Your task to perform on an android device: turn notification dots off Image 0: 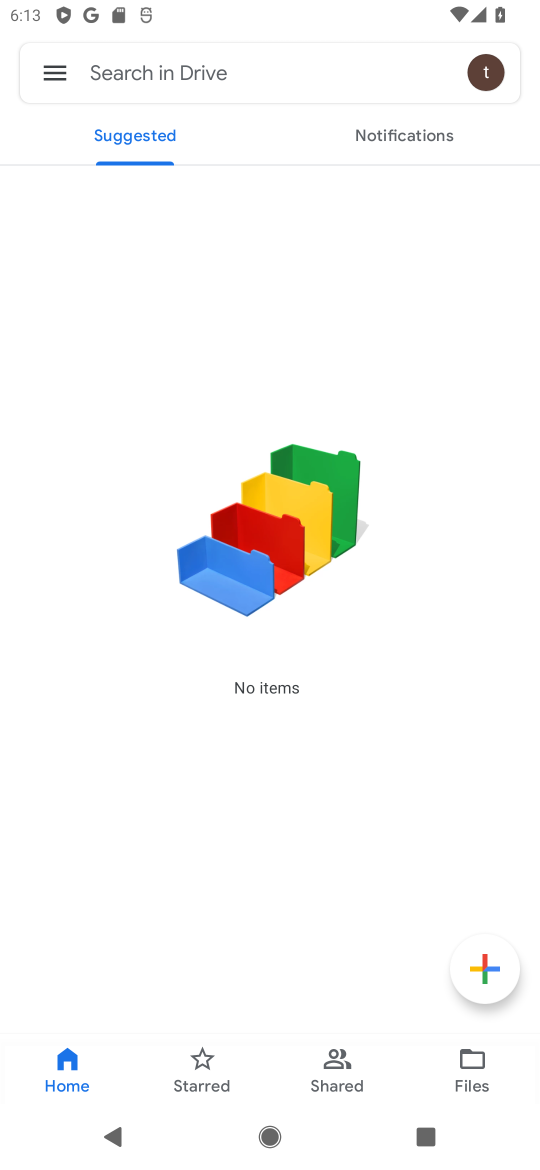
Step 0: press home button
Your task to perform on an android device: turn notification dots off Image 1: 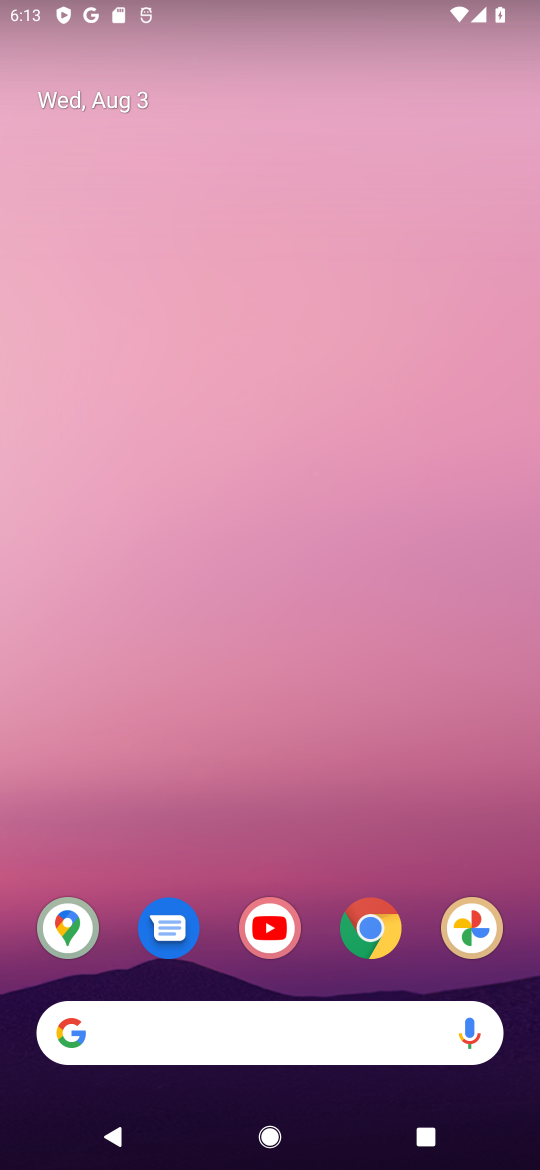
Step 1: drag from (323, 821) to (367, 95)
Your task to perform on an android device: turn notification dots off Image 2: 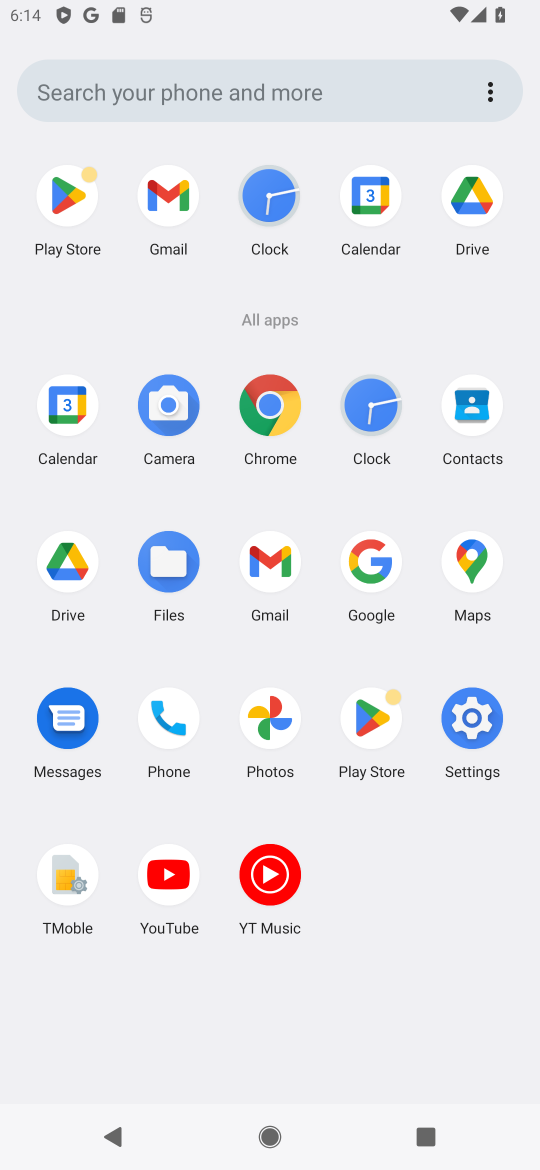
Step 2: click (486, 721)
Your task to perform on an android device: turn notification dots off Image 3: 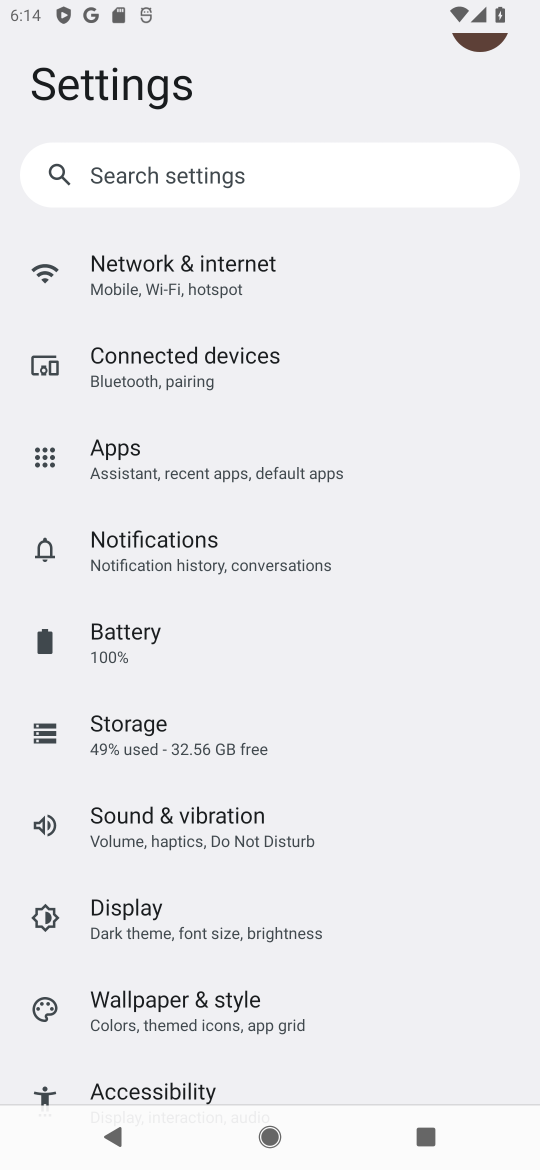
Step 3: drag from (410, 947) to (430, 632)
Your task to perform on an android device: turn notification dots off Image 4: 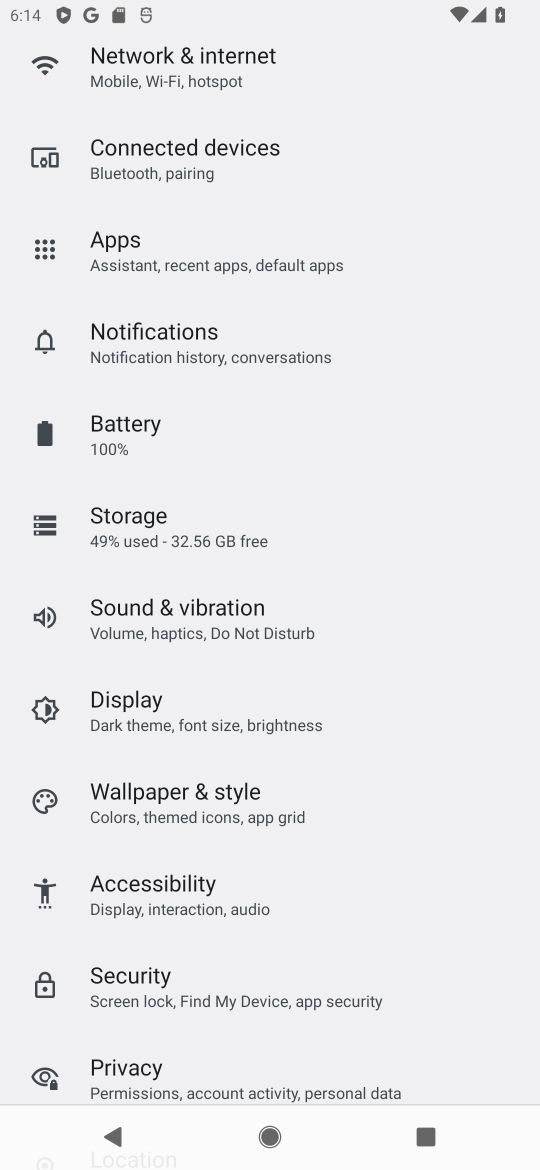
Step 4: drag from (389, 962) to (393, 638)
Your task to perform on an android device: turn notification dots off Image 5: 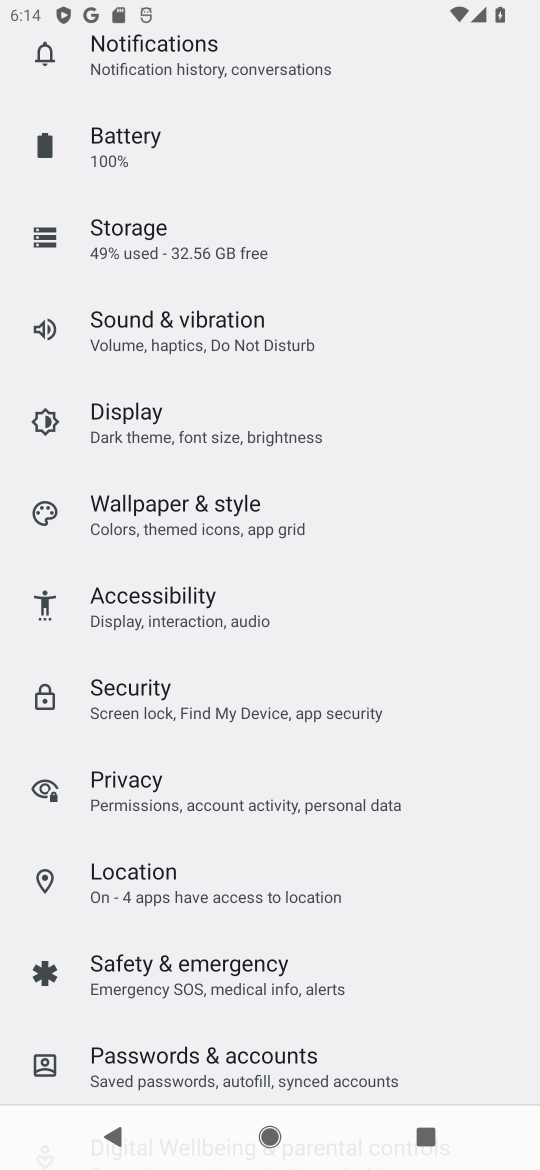
Step 5: drag from (428, 984) to (453, 713)
Your task to perform on an android device: turn notification dots off Image 6: 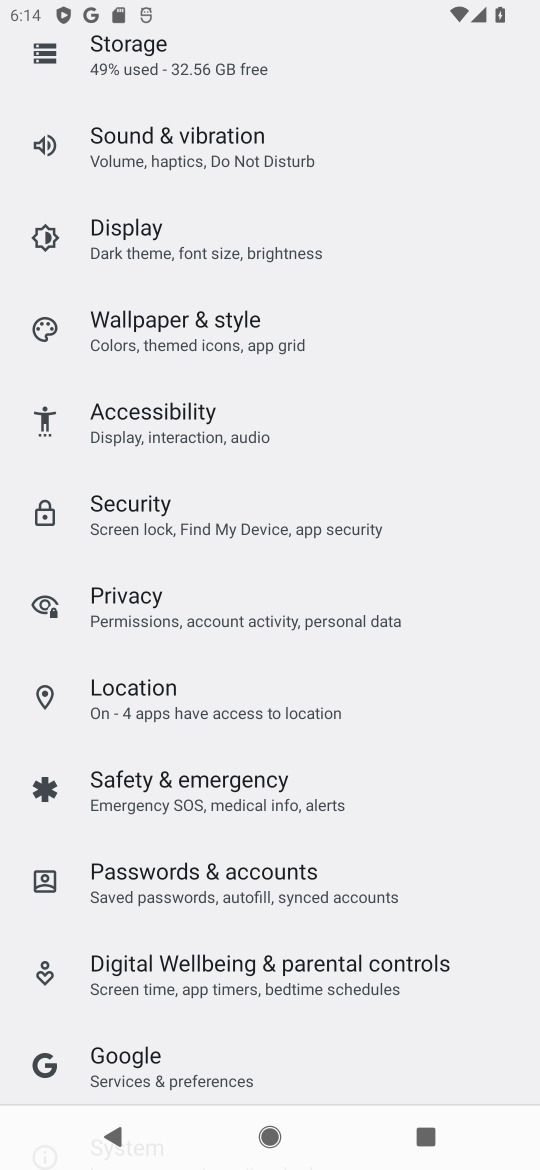
Step 6: drag from (456, 1005) to (462, 559)
Your task to perform on an android device: turn notification dots off Image 7: 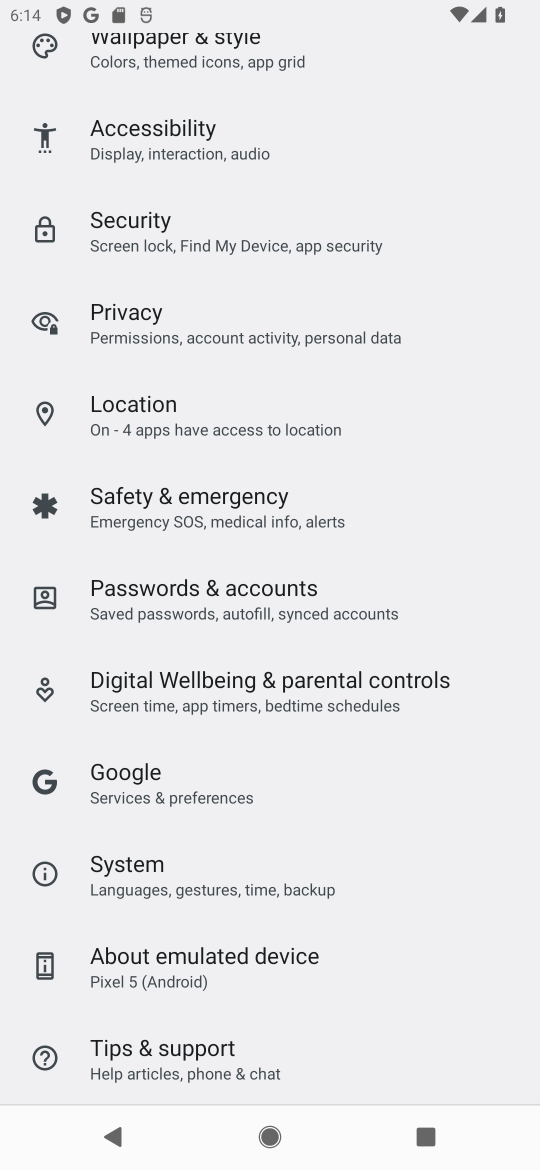
Step 7: drag from (433, 1037) to (455, 601)
Your task to perform on an android device: turn notification dots off Image 8: 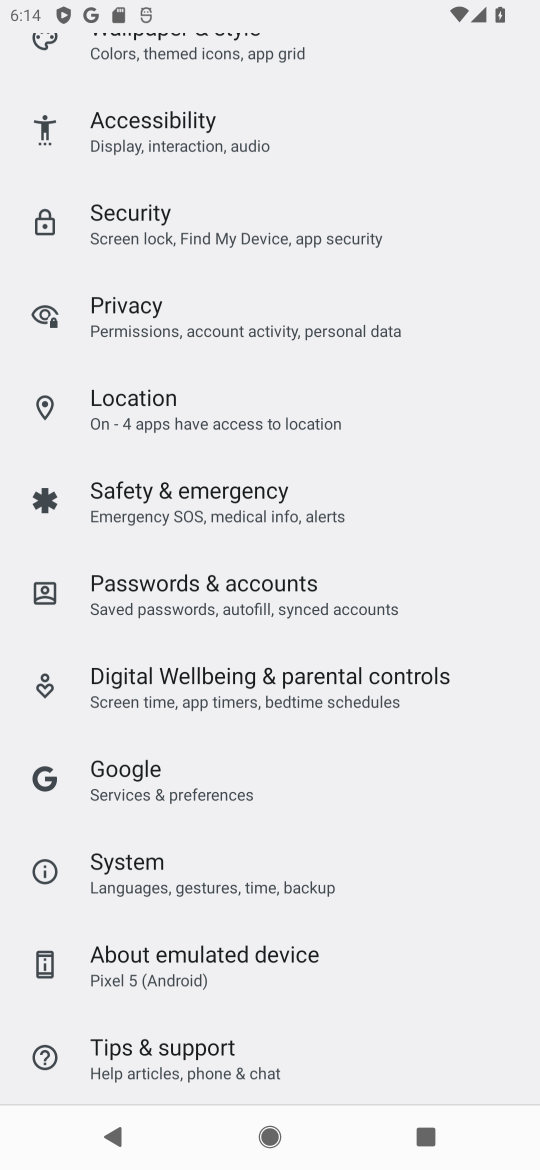
Step 8: drag from (452, 494) to (454, 855)
Your task to perform on an android device: turn notification dots off Image 9: 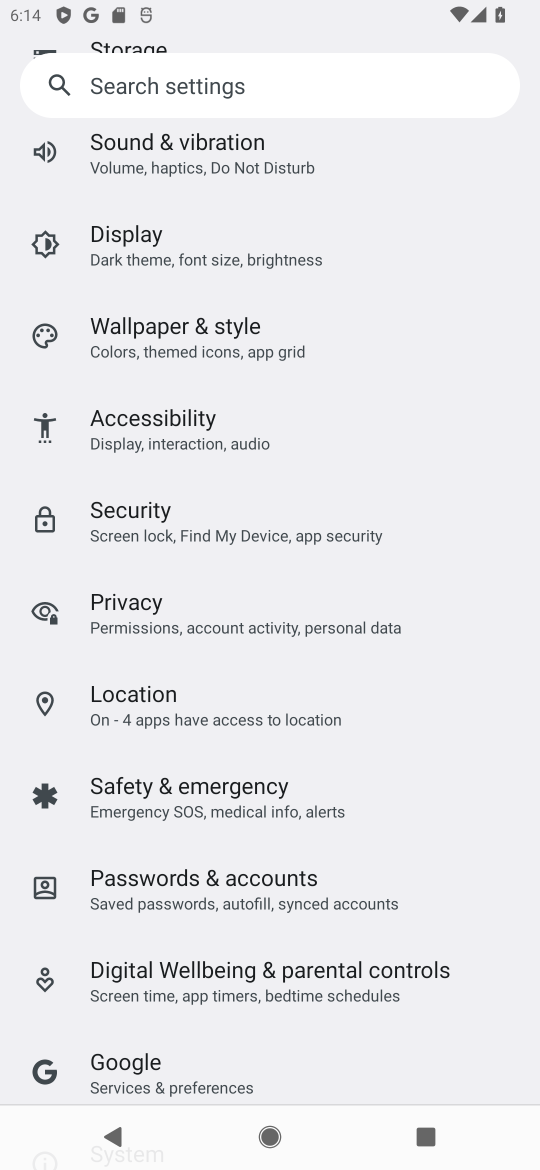
Step 9: drag from (455, 417) to (443, 733)
Your task to perform on an android device: turn notification dots off Image 10: 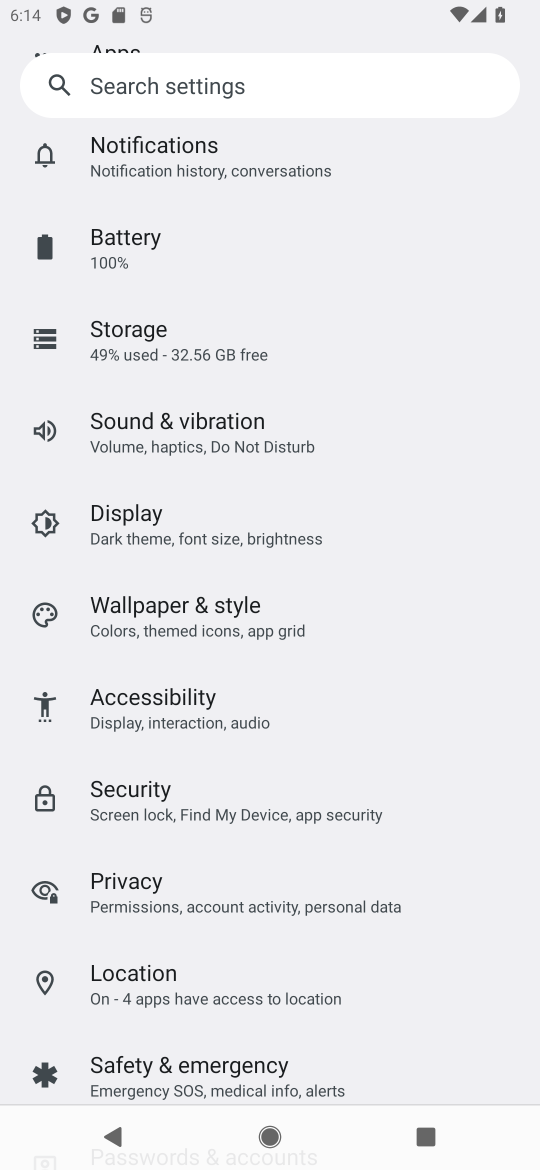
Step 10: drag from (448, 380) to (449, 760)
Your task to perform on an android device: turn notification dots off Image 11: 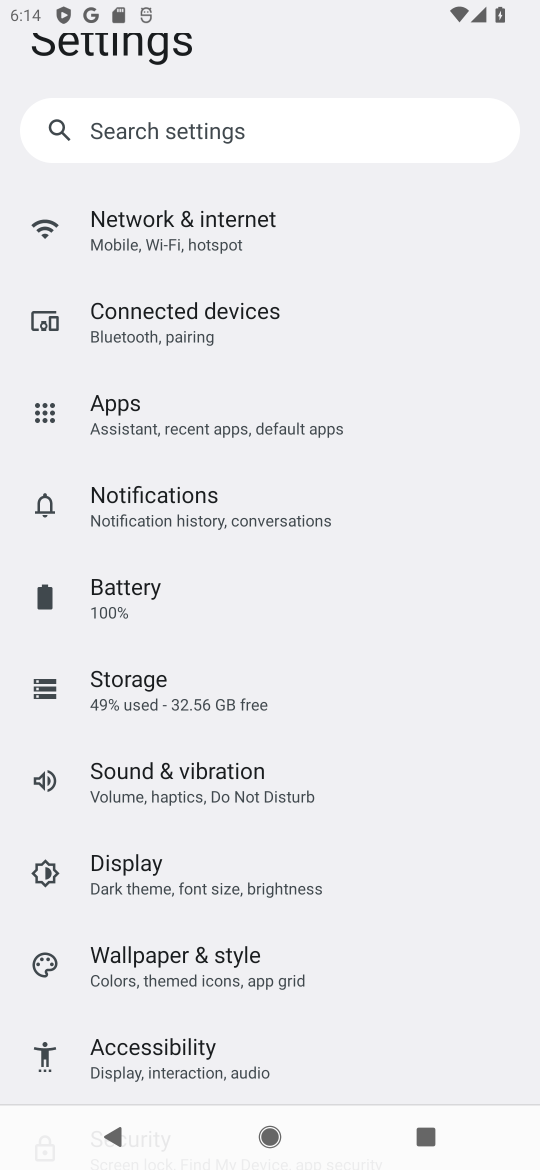
Step 11: drag from (451, 379) to (446, 726)
Your task to perform on an android device: turn notification dots off Image 12: 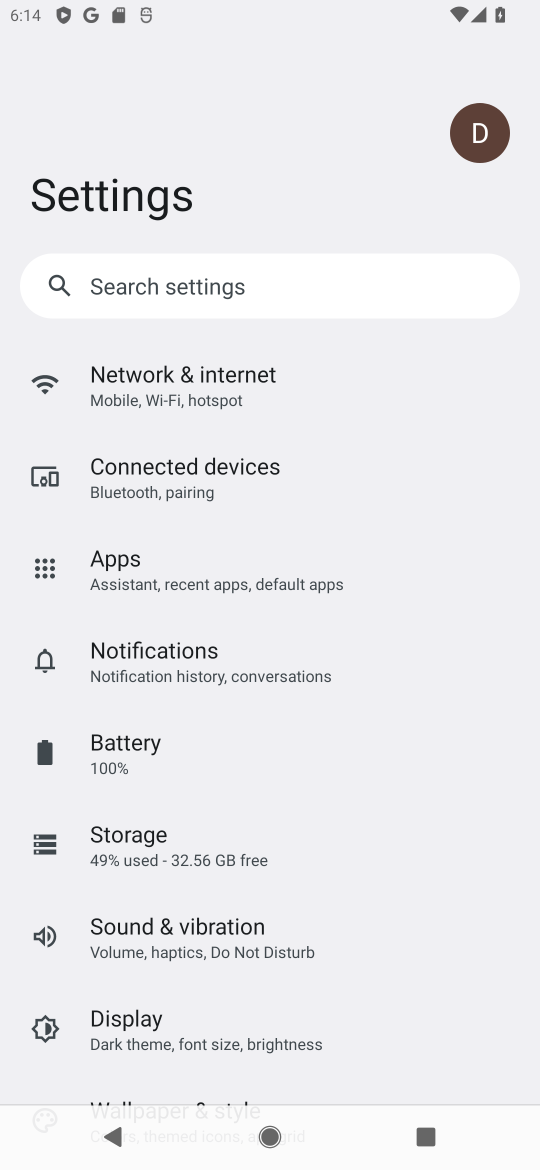
Step 12: click (287, 655)
Your task to perform on an android device: turn notification dots off Image 13: 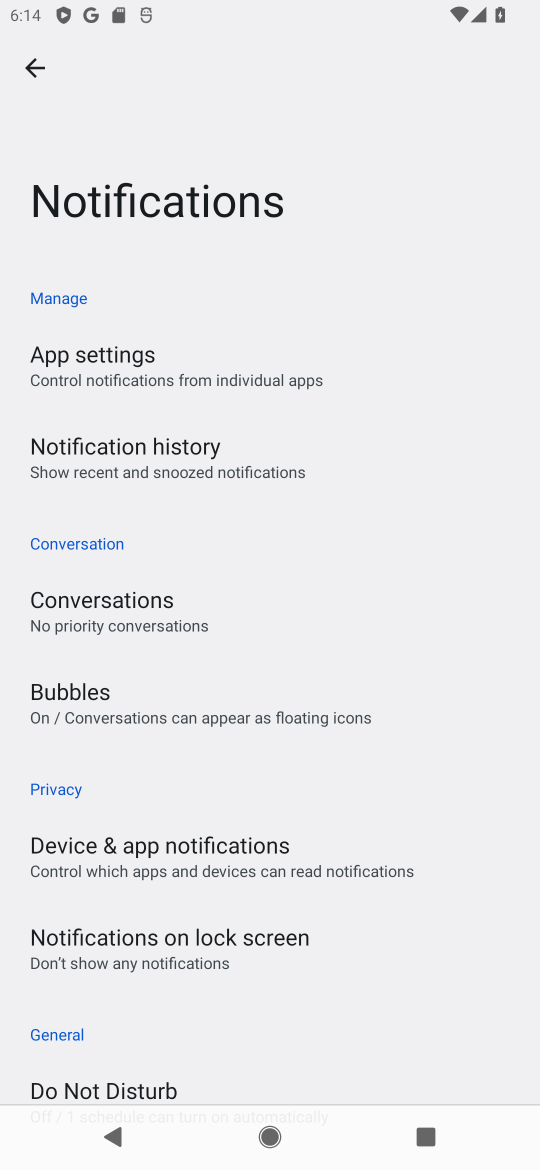
Step 13: drag from (466, 1005) to (490, 717)
Your task to perform on an android device: turn notification dots off Image 14: 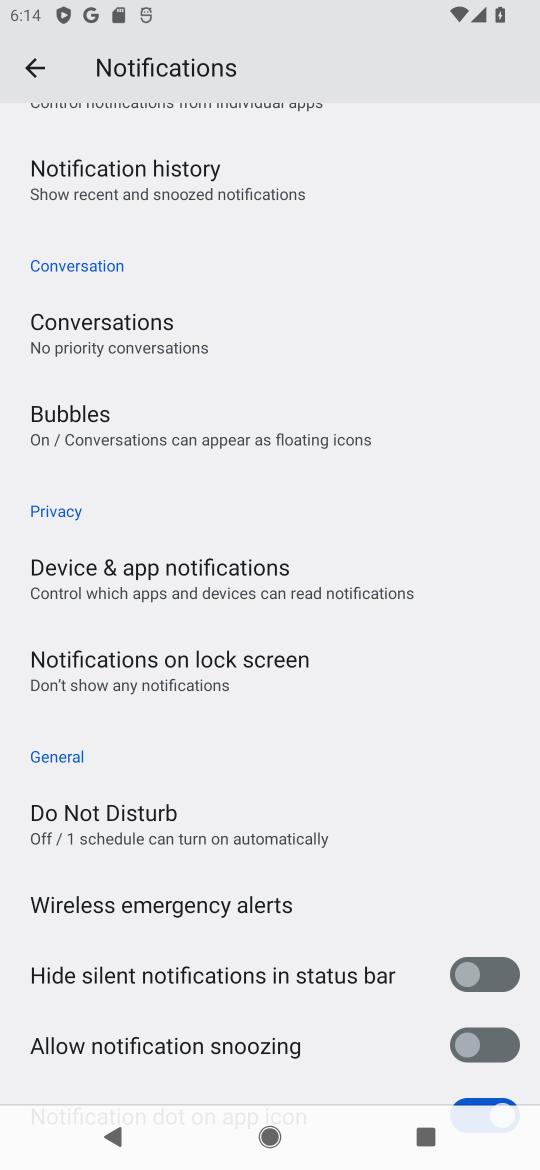
Step 14: drag from (376, 1063) to (405, 778)
Your task to perform on an android device: turn notification dots off Image 15: 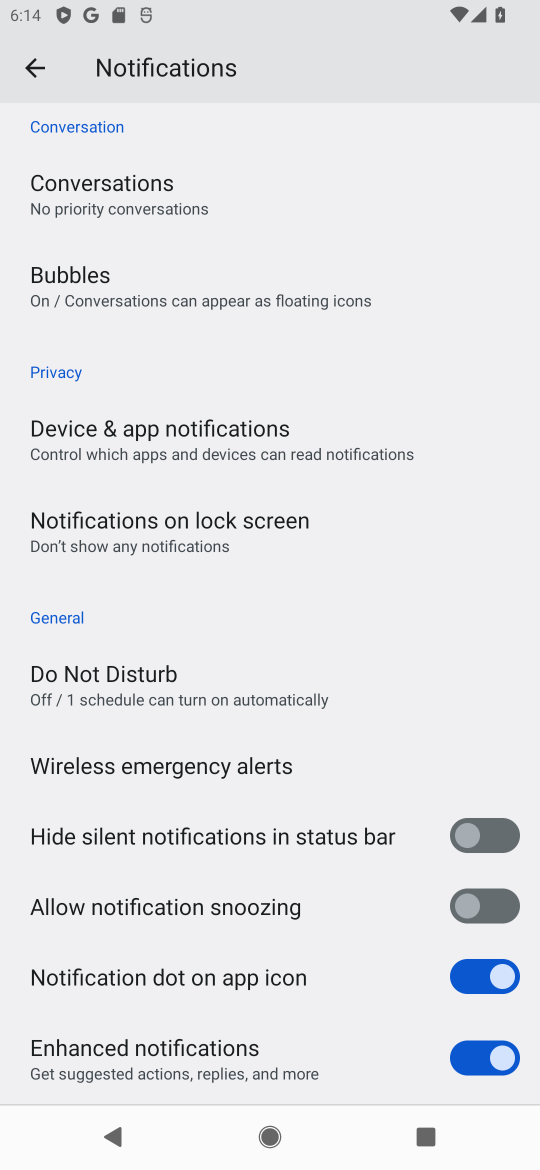
Step 15: click (489, 998)
Your task to perform on an android device: turn notification dots off Image 16: 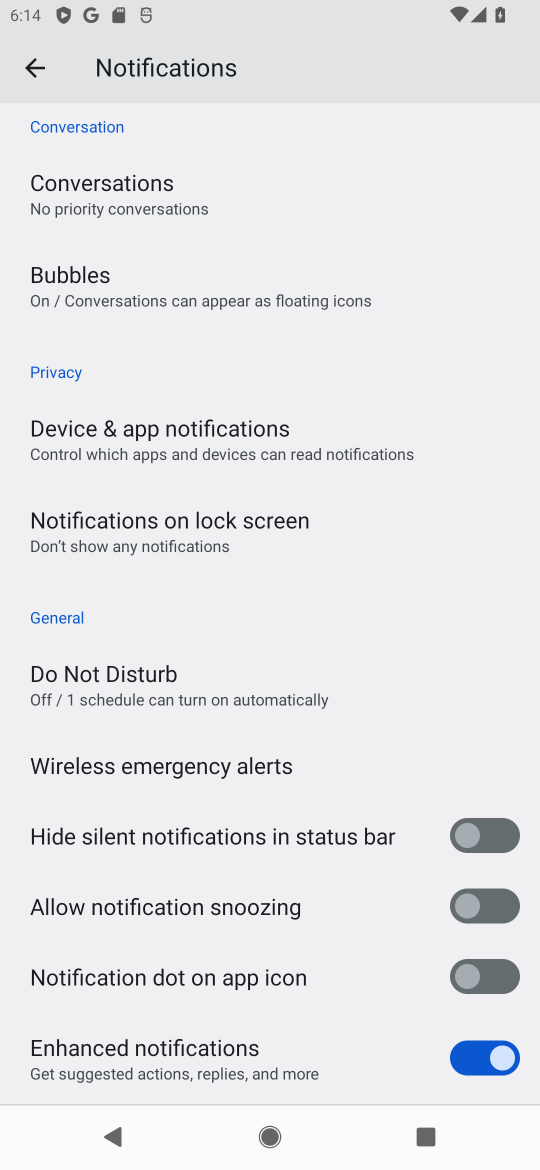
Step 16: task complete